Your task to perform on an android device: What's the weather? Image 0: 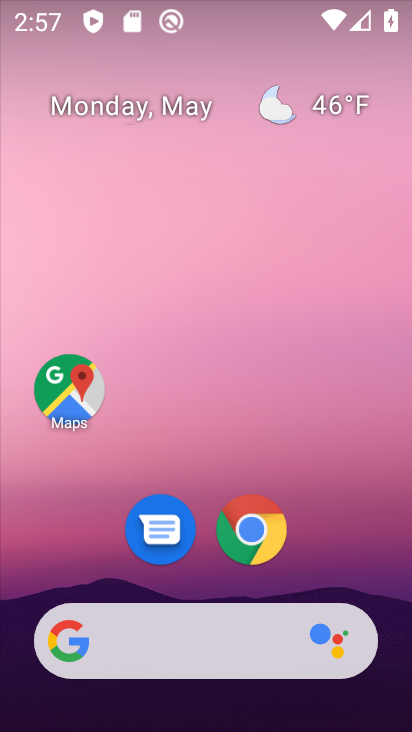
Step 0: drag from (353, 377) to (326, 201)
Your task to perform on an android device: What's the weather? Image 1: 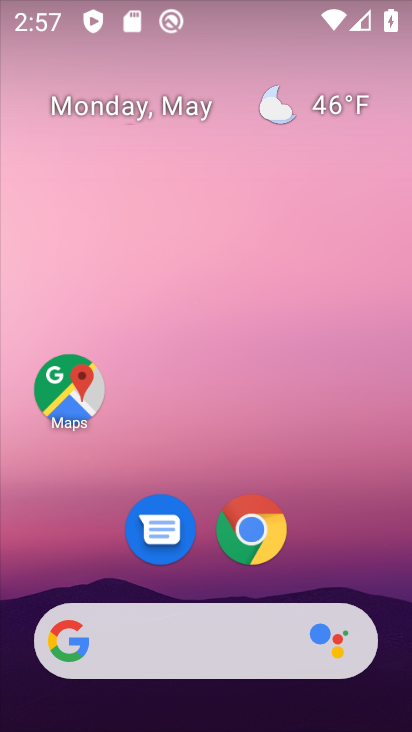
Step 1: drag from (384, 589) to (368, 239)
Your task to perform on an android device: What's the weather? Image 2: 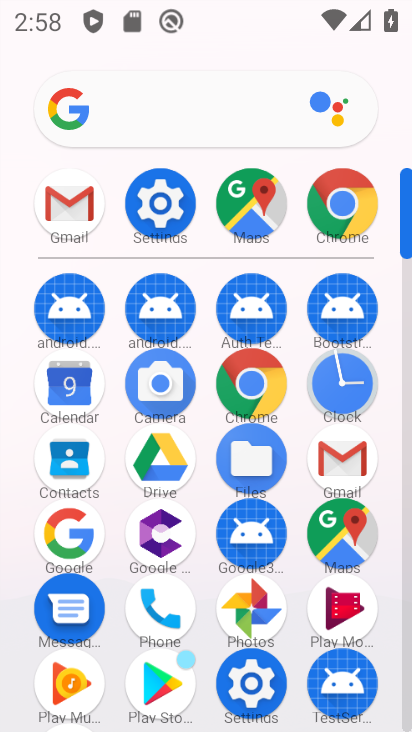
Step 2: click (236, 376)
Your task to perform on an android device: What's the weather? Image 3: 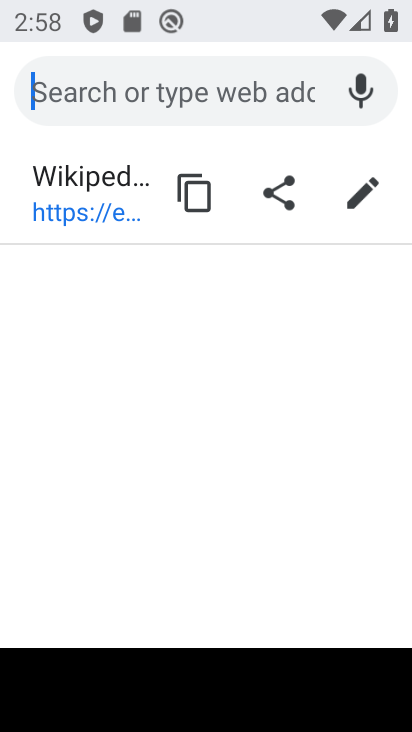
Step 3: click (171, 96)
Your task to perform on an android device: What's the weather? Image 4: 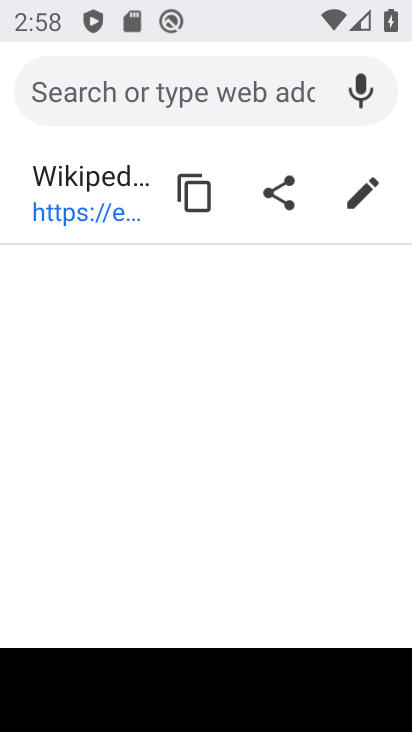
Step 4: type "what's the weather "
Your task to perform on an android device: What's the weather? Image 5: 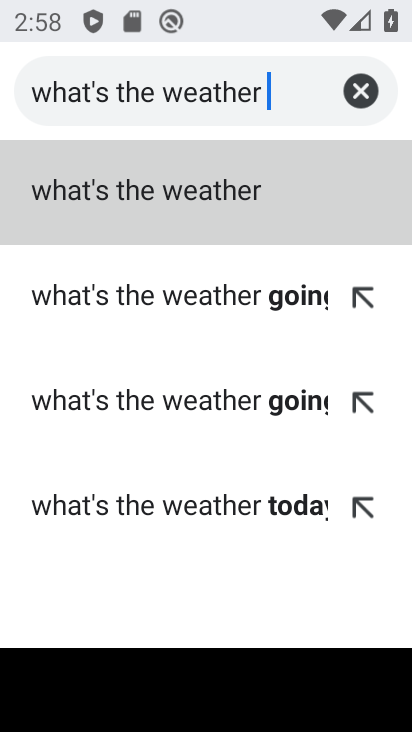
Step 5: click (227, 187)
Your task to perform on an android device: What's the weather? Image 6: 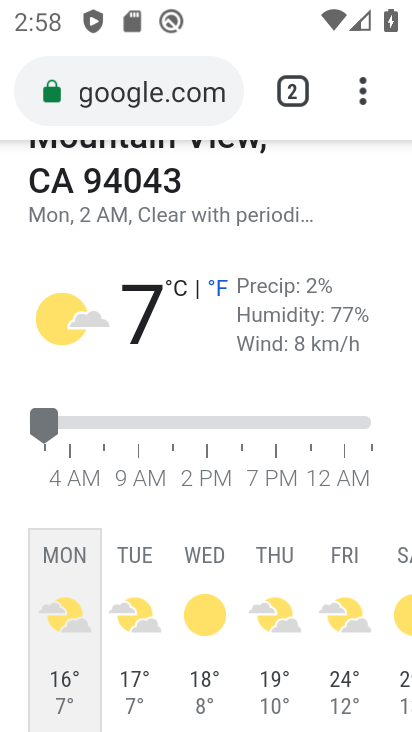
Step 6: task complete